Your task to perform on an android device: What's on my calendar tomorrow? Image 0: 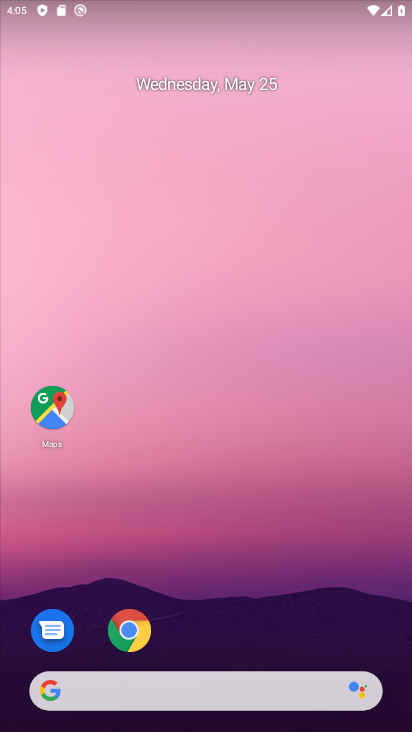
Step 0: drag from (197, 662) to (305, 105)
Your task to perform on an android device: What's on my calendar tomorrow? Image 1: 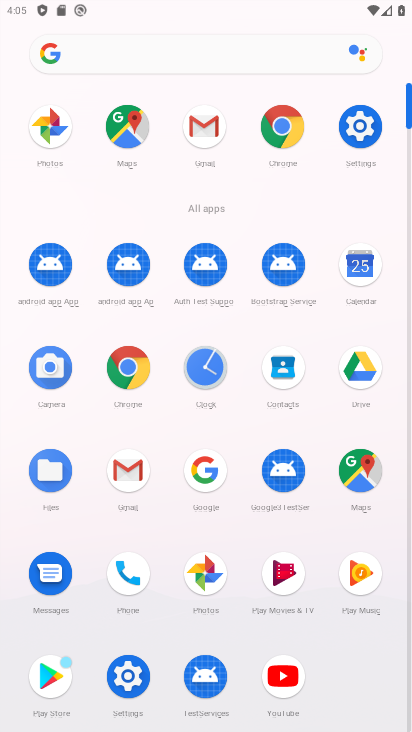
Step 1: click (366, 265)
Your task to perform on an android device: What's on my calendar tomorrow? Image 2: 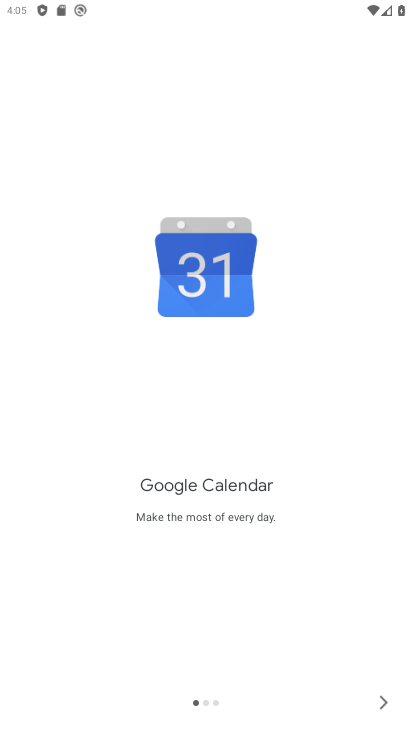
Step 2: click (384, 701)
Your task to perform on an android device: What's on my calendar tomorrow? Image 3: 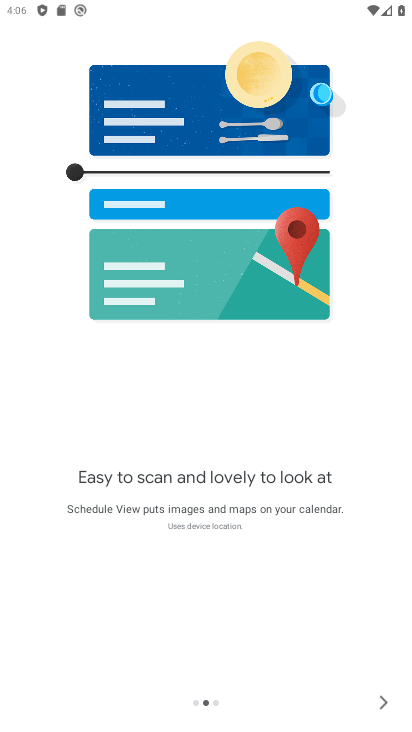
Step 3: click (384, 701)
Your task to perform on an android device: What's on my calendar tomorrow? Image 4: 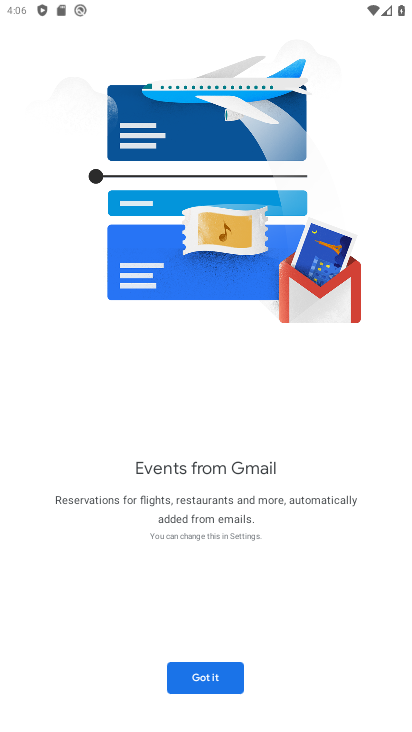
Step 4: click (211, 684)
Your task to perform on an android device: What's on my calendar tomorrow? Image 5: 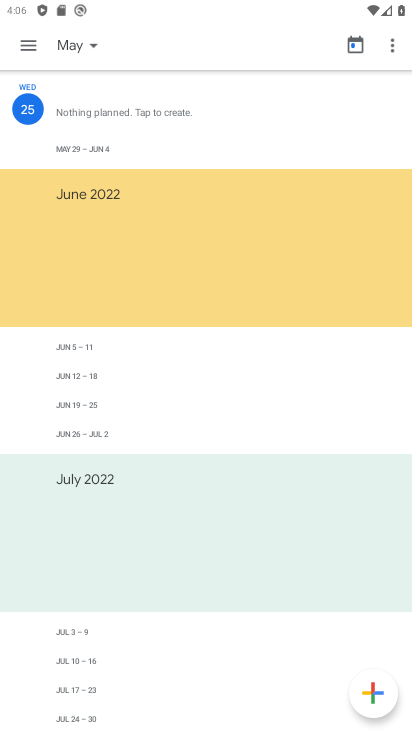
Step 5: click (25, 45)
Your task to perform on an android device: What's on my calendar tomorrow? Image 6: 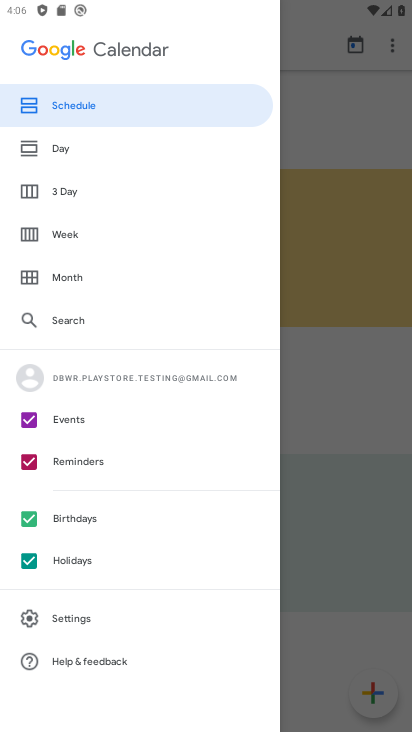
Step 6: click (86, 106)
Your task to perform on an android device: What's on my calendar tomorrow? Image 7: 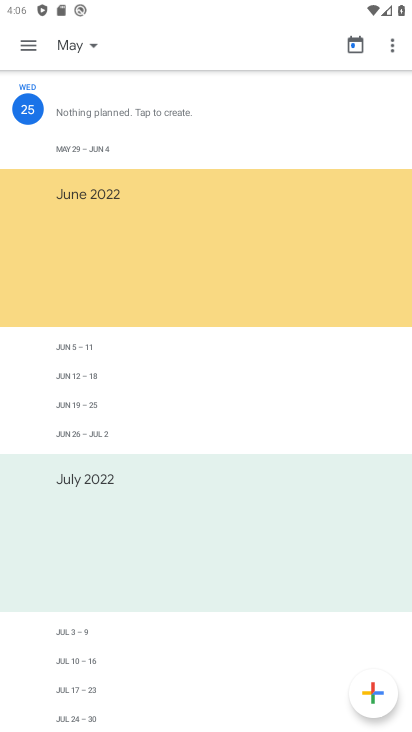
Step 7: click (89, 43)
Your task to perform on an android device: What's on my calendar tomorrow? Image 8: 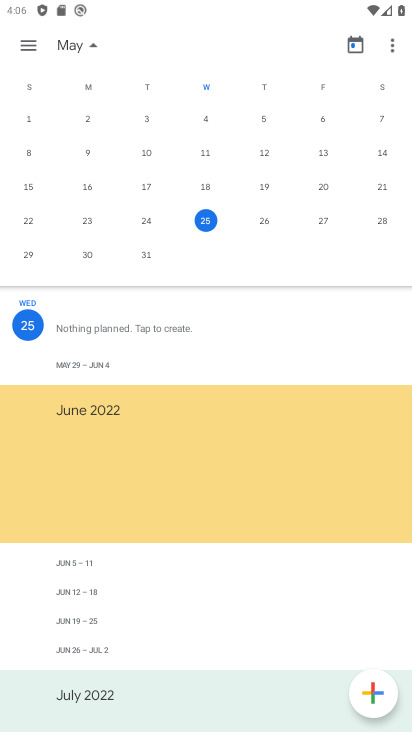
Step 8: click (208, 219)
Your task to perform on an android device: What's on my calendar tomorrow? Image 9: 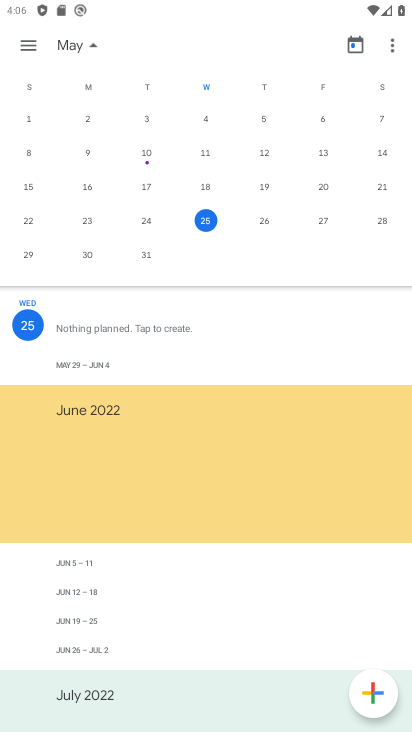
Step 9: click (17, 41)
Your task to perform on an android device: What's on my calendar tomorrow? Image 10: 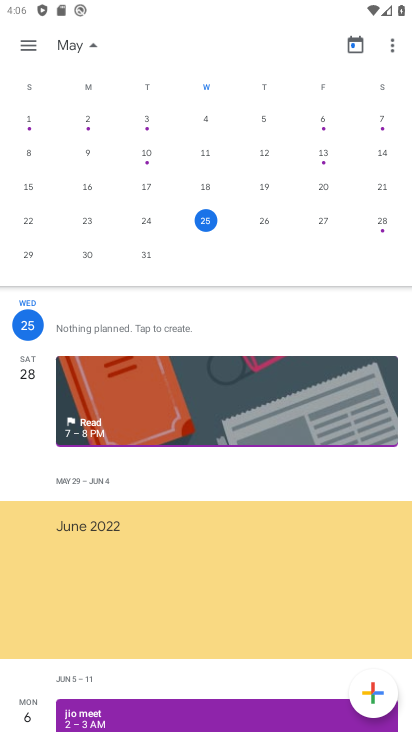
Step 10: click (27, 40)
Your task to perform on an android device: What's on my calendar tomorrow? Image 11: 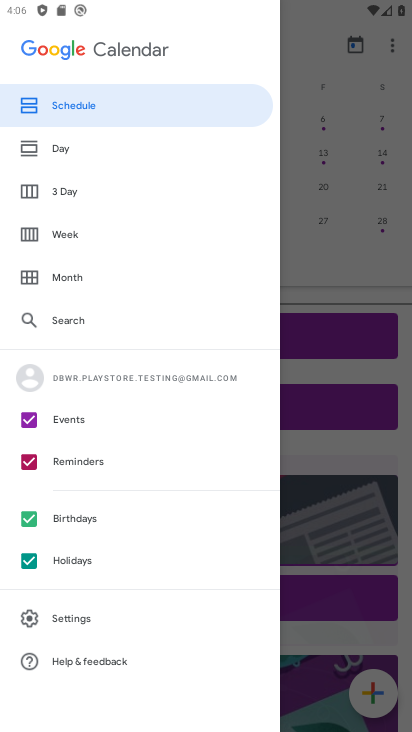
Step 11: click (109, 102)
Your task to perform on an android device: What's on my calendar tomorrow? Image 12: 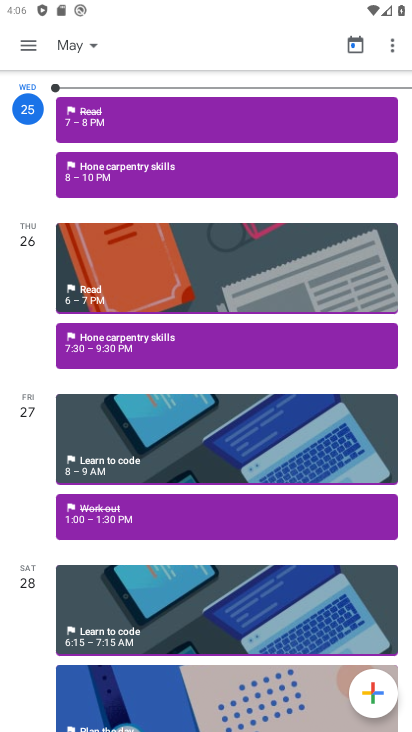
Step 12: click (95, 353)
Your task to perform on an android device: What's on my calendar tomorrow? Image 13: 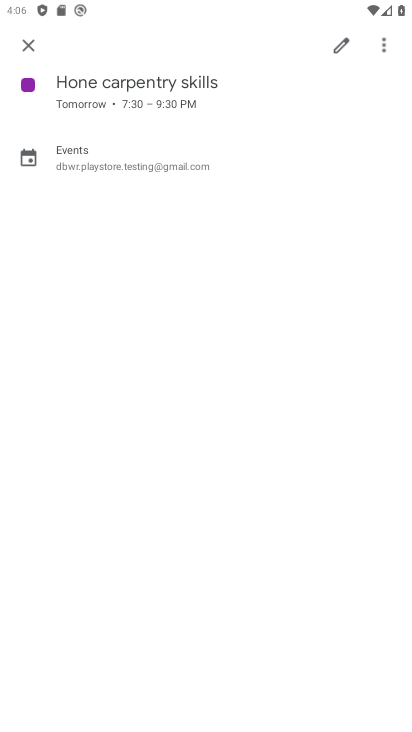
Step 13: task complete